Your task to perform on an android device: Go to Google maps Image 0: 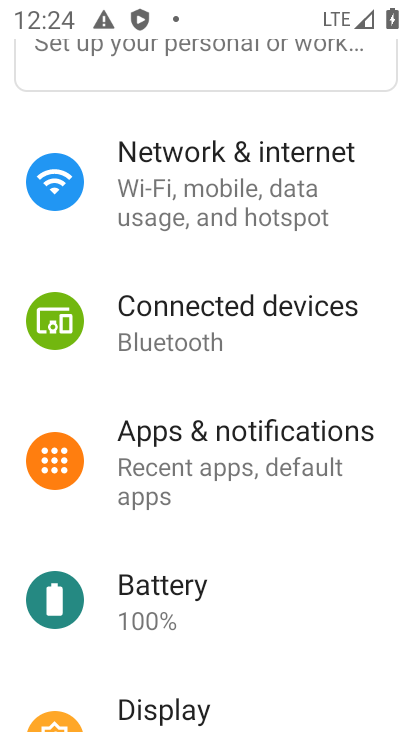
Step 0: drag from (309, 569) to (246, 135)
Your task to perform on an android device: Go to Google maps Image 1: 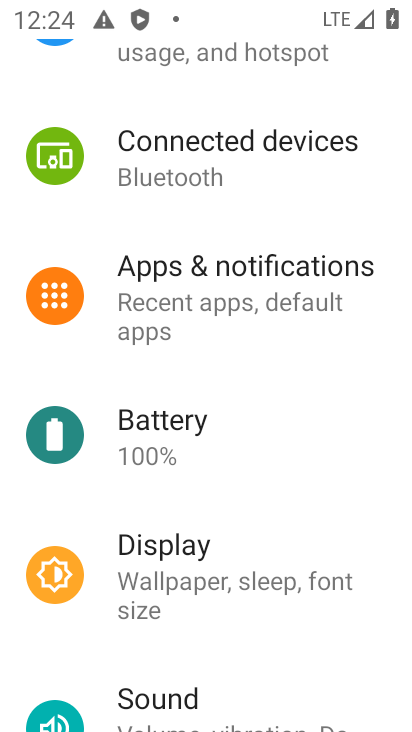
Step 1: press home button
Your task to perform on an android device: Go to Google maps Image 2: 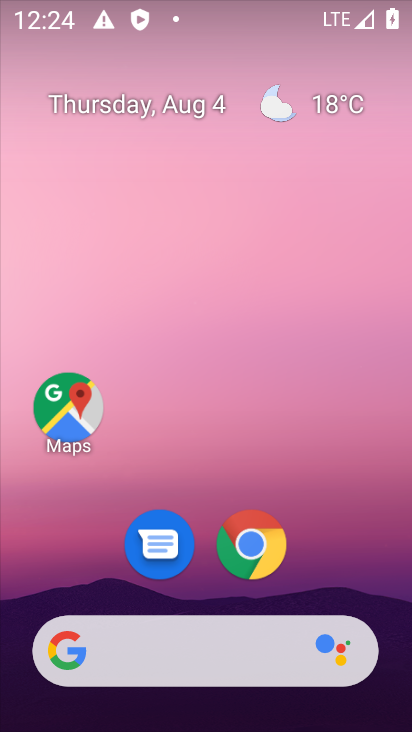
Step 2: click (47, 409)
Your task to perform on an android device: Go to Google maps Image 3: 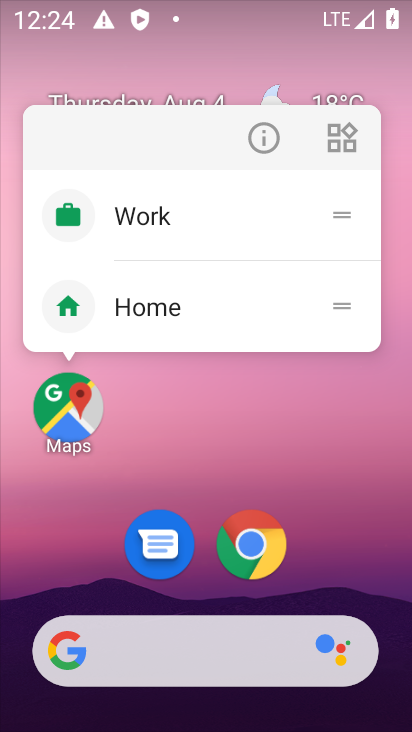
Step 3: click (75, 417)
Your task to perform on an android device: Go to Google maps Image 4: 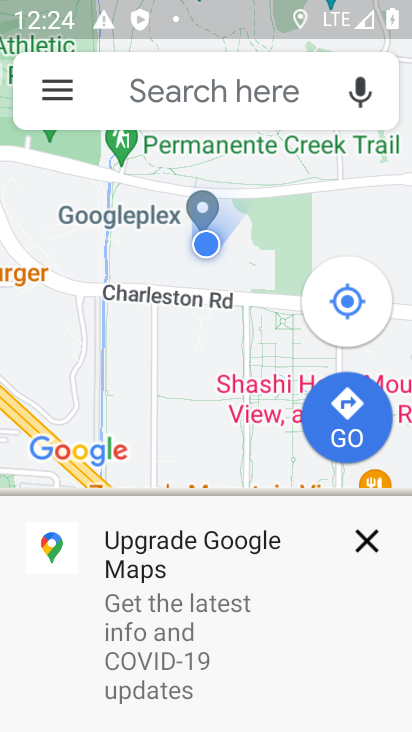
Step 4: task complete